Your task to perform on an android device: Open Wikipedia Image 0: 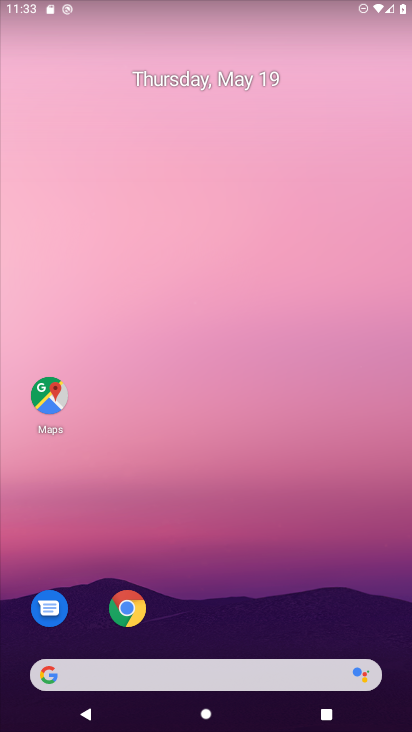
Step 0: click (131, 602)
Your task to perform on an android device: Open Wikipedia Image 1: 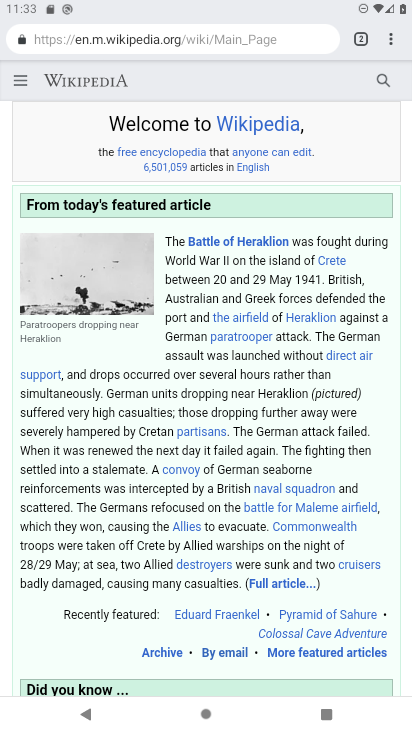
Step 1: task complete